Your task to perform on an android device: open app "Firefox Browser" Image 0: 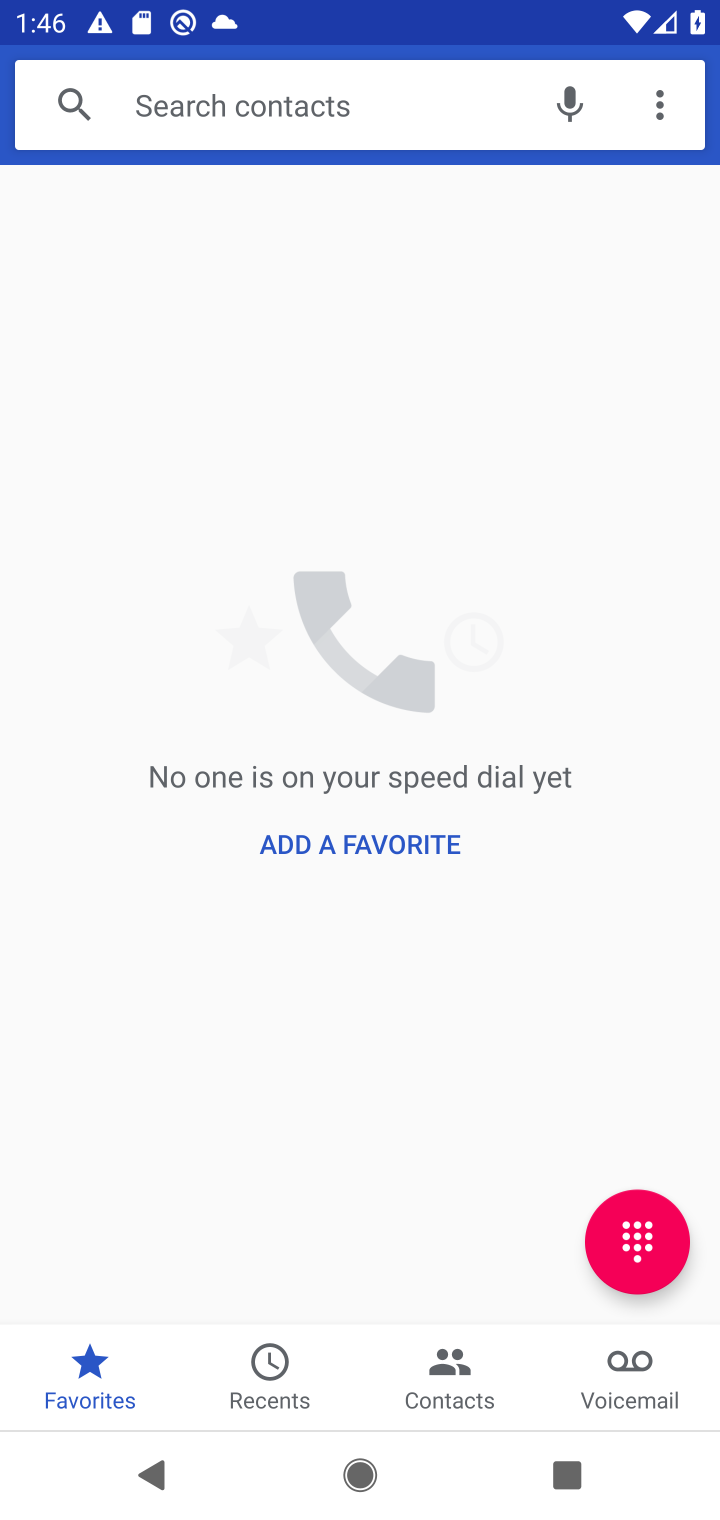
Step 0: press home button
Your task to perform on an android device: open app "Firefox Browser" Image 1: 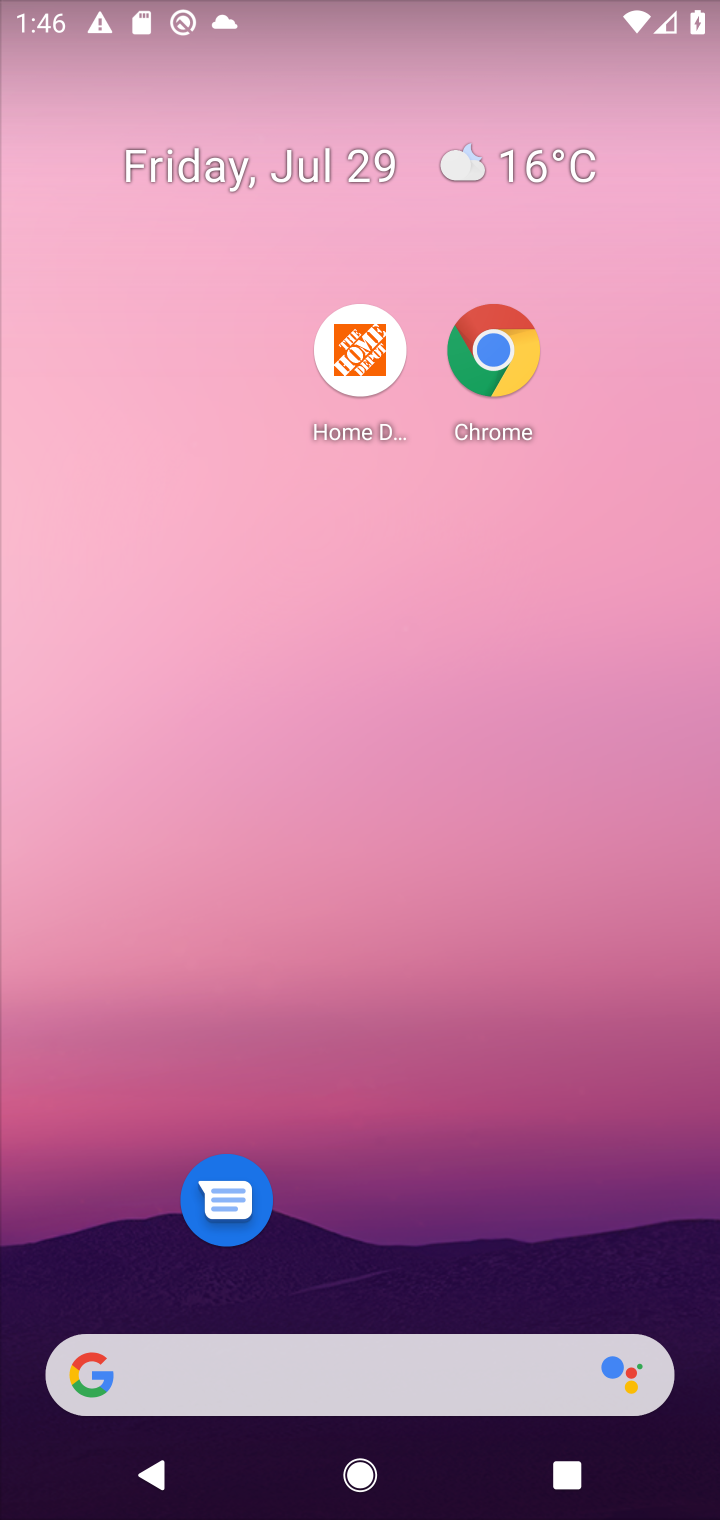
Step 1: drag from (522, 1230) to (481, 94)
Your task to perform on an android device: open app "Firefox Browser" Image 2: 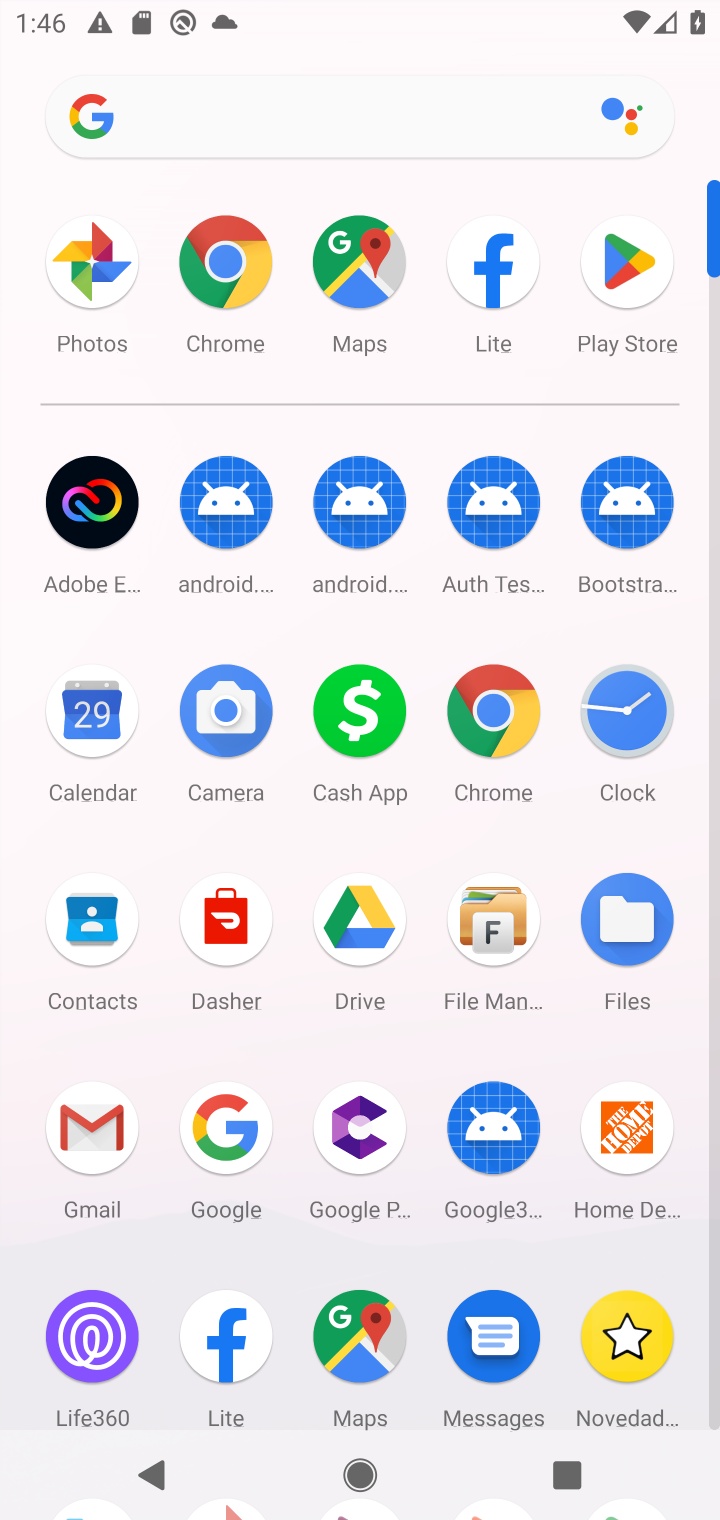
Step 2: click (644, 269)
Your task to perform on an android device: open app "Firefox Browser" Image 3: 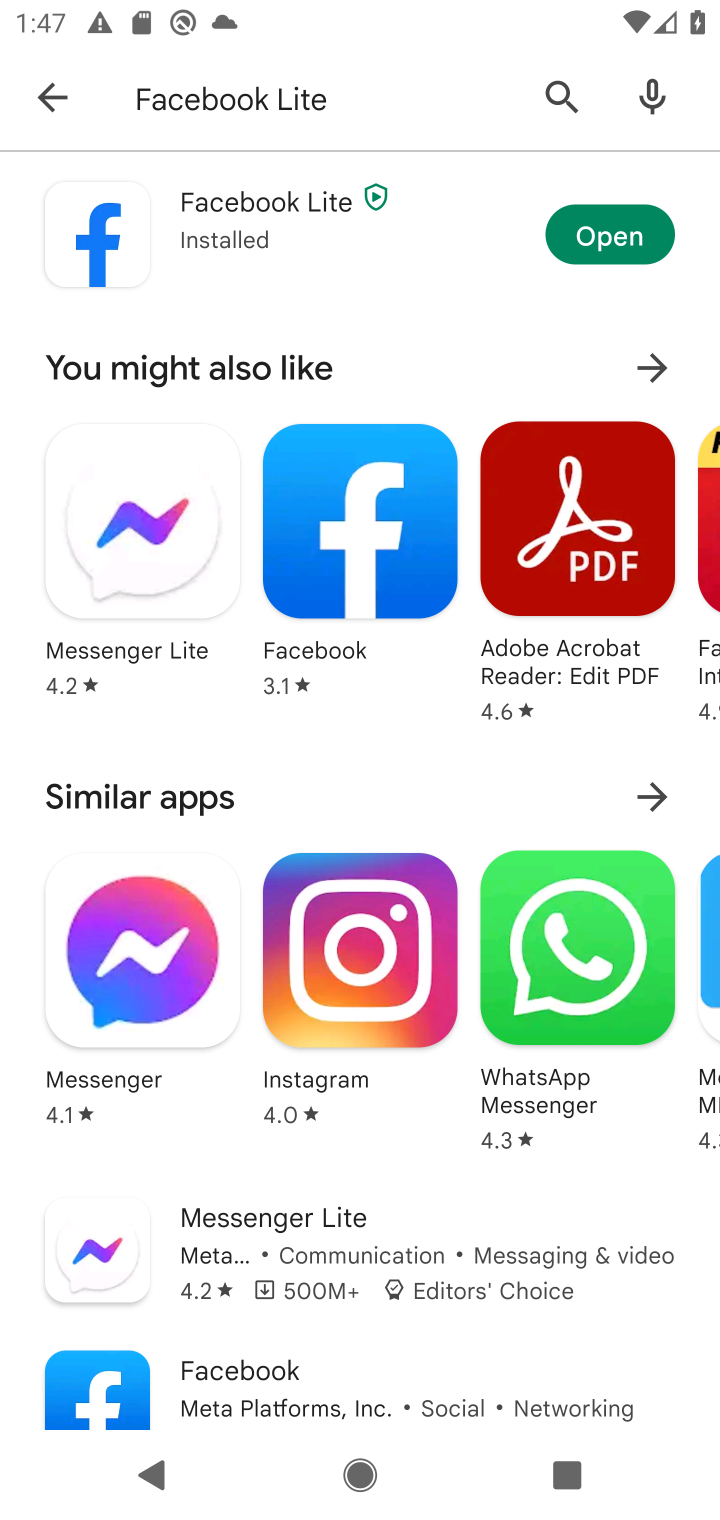
Step 3: click (404, 99)
Your task to perform on an android device: open app "Firefox Browser" Image 4: 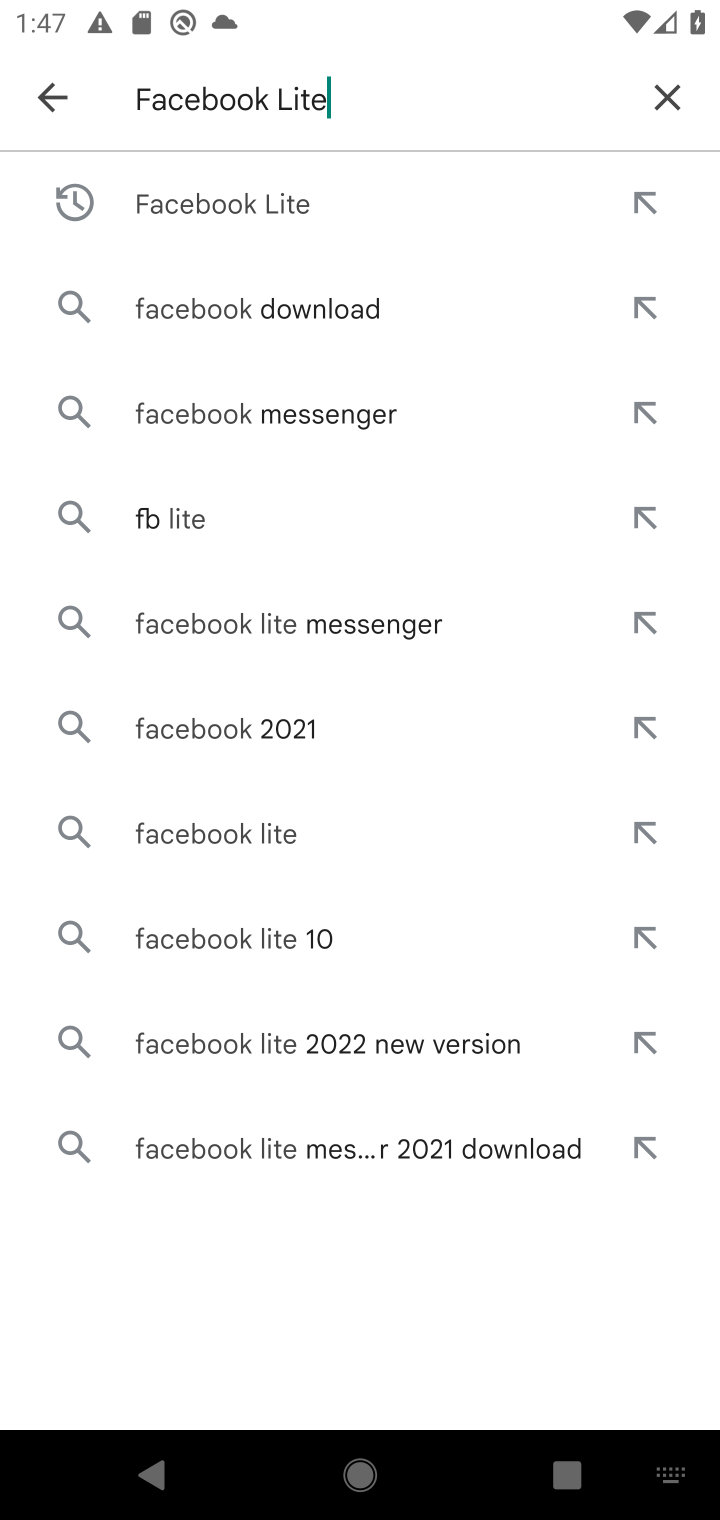
Step 4: click (679, 88)
Your task to perform on an android device: open app "Firefox Browser" Image 5: 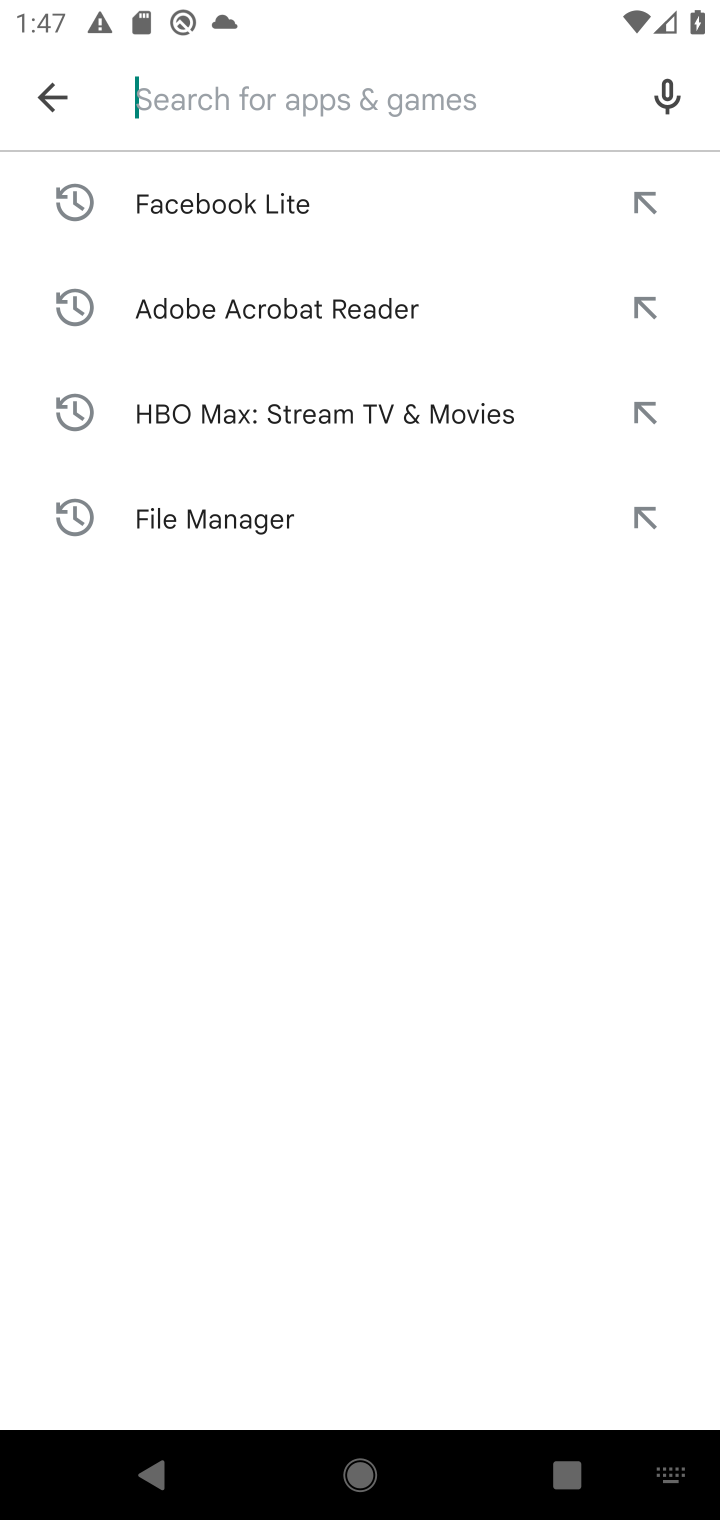
Step 5: type "Firefox Browser"
Your task to perform on an android device: open app "Firefox Browser" Image 6: 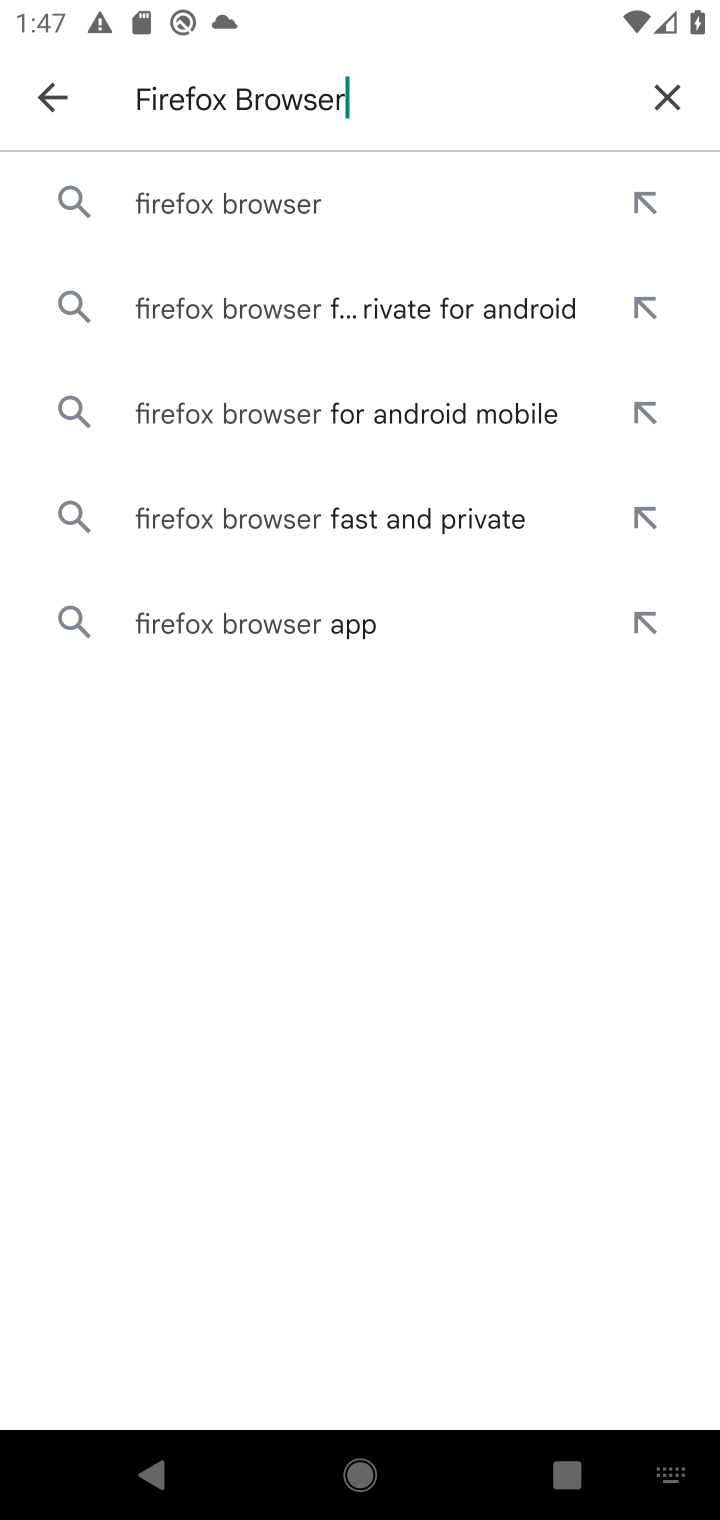
Step 6: press enter
Your task to perform on an android device: open app "Firefox Browser" Image 7: 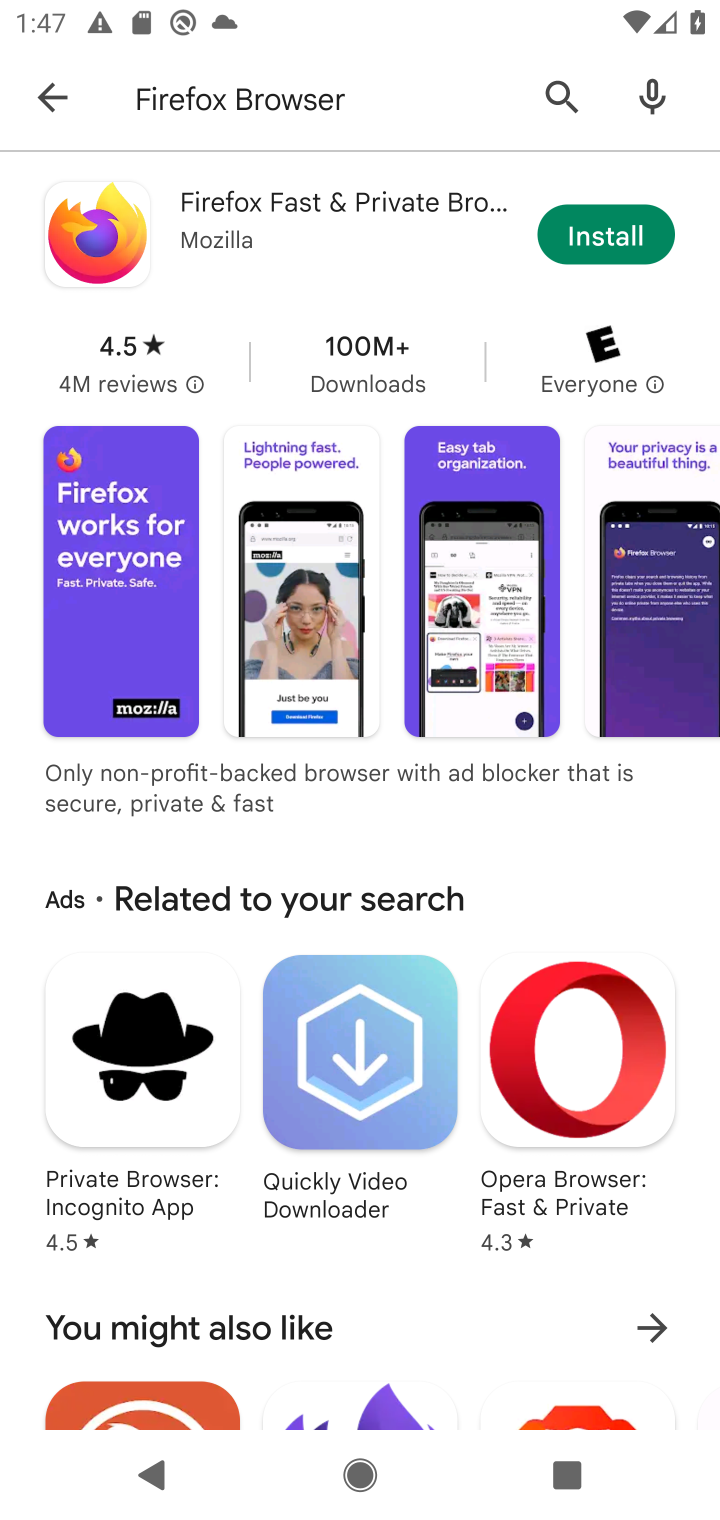
Step 7: click (388, 243)
Your task to perform on an android device: open app "Firefox Browser" Image 8: 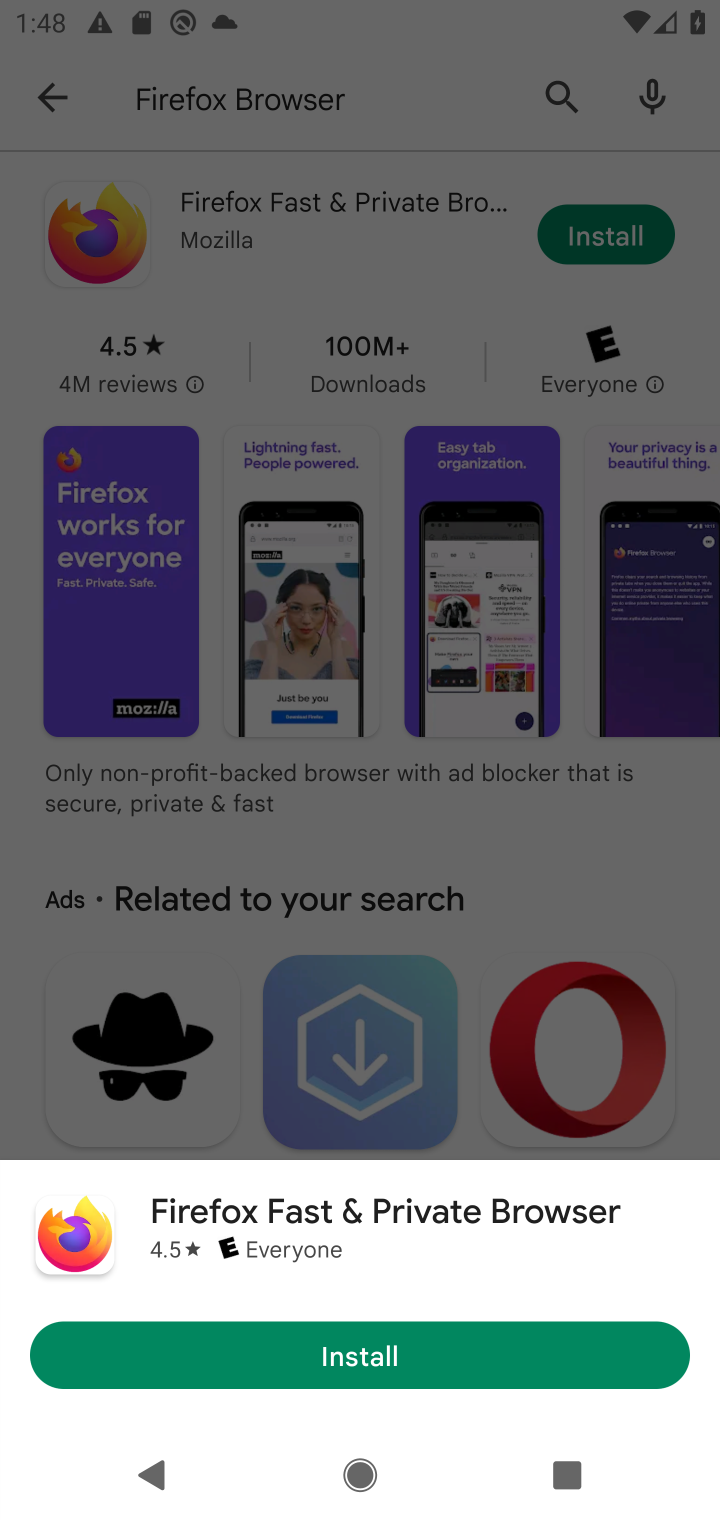
Step 8: task complete